Your task to perform on an android device: Search for 4k TVs on Best Buy. Image 0: 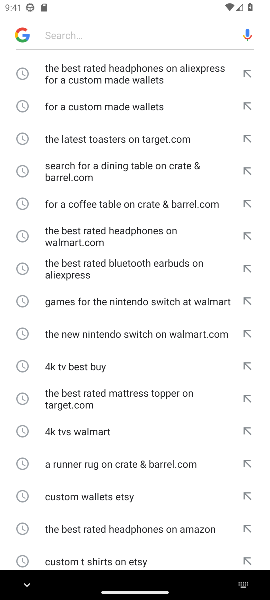
Step 0: type " 4k TVs on Best Buy"
Your task to perform on an android device: Search for 4k TVs on Best Buy. Image 1: 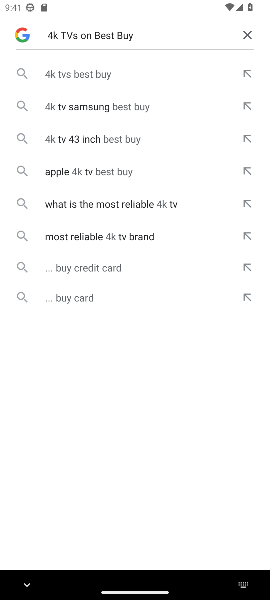
Step 1: click (78, 74)
Your task to perform on an android device: Search for 4k TVs on Best Buy. Image 2: 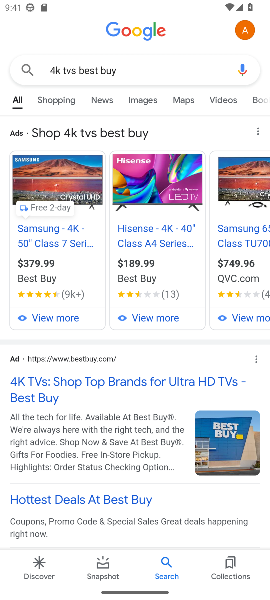
Step 2: task complete